Your task to perform on an android device: install app "Truecaller" Image 0: 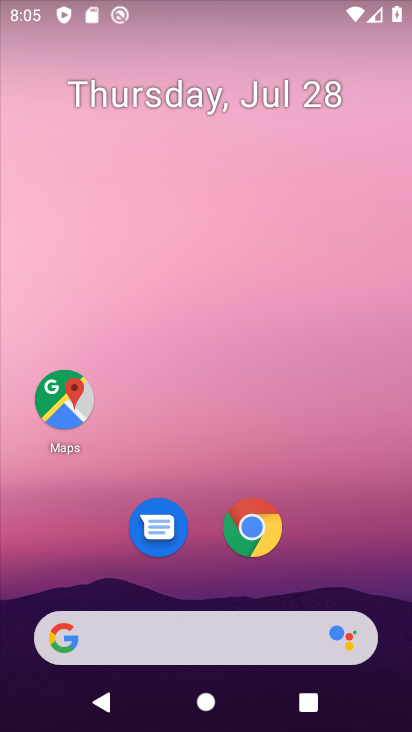
Step 0: drag from (235, 564) to (259, 87)
Your task to perform on an android device: install app "Truecaller" Image 1: 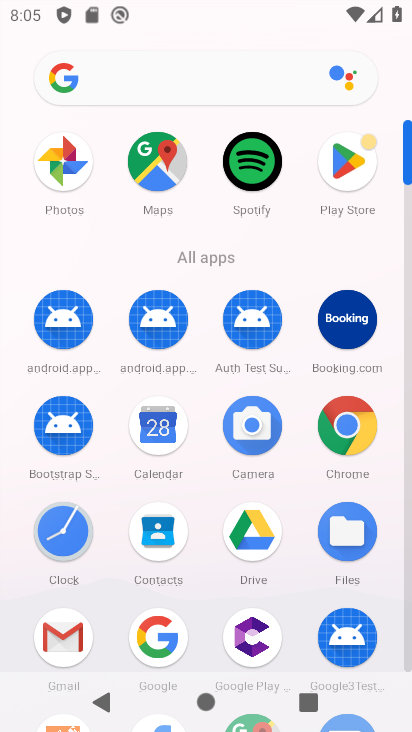
Step 1: click (341, 168)
Your task to perform on an android device: install app "Truecaller" Image 2: 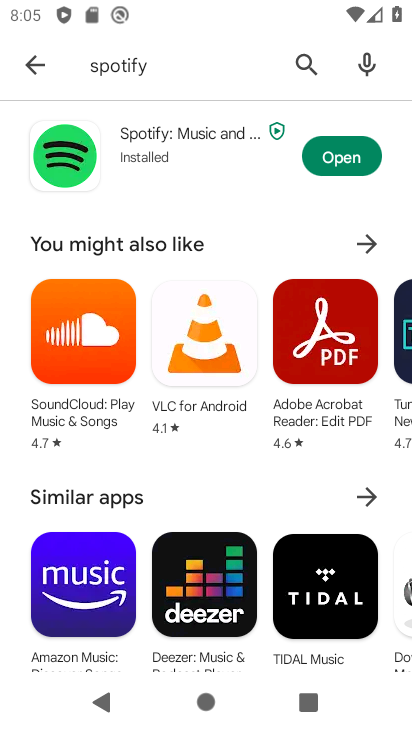
Step 2: click (294, 70)
Your task to perform on an android device: install app "Truecaller" Image 3: 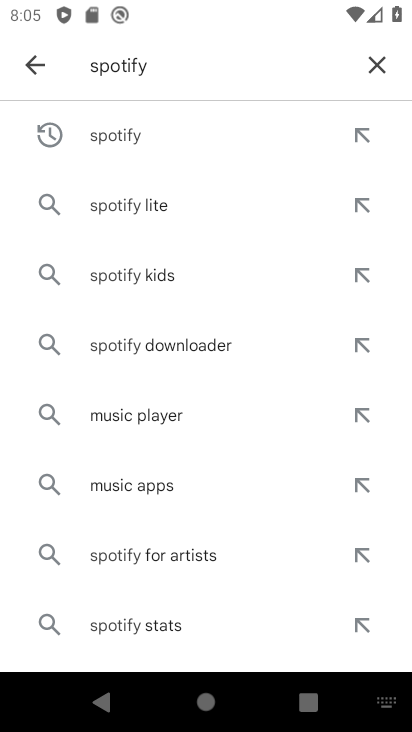
Step 3: click (369, 61)
Your task to perform on an android device: install app "Truecaller" Image 4: 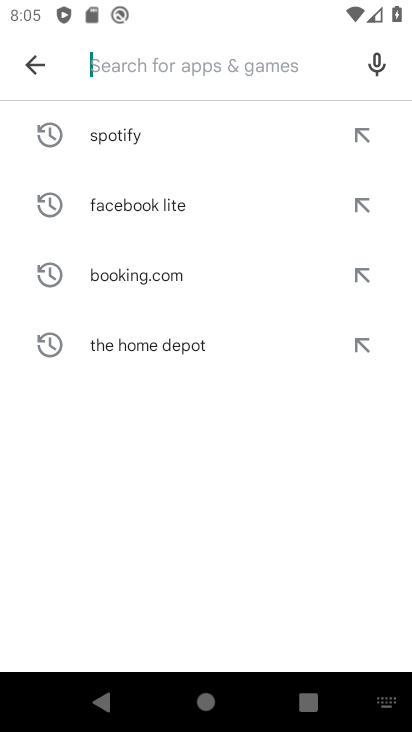
Step 4: click (159, 65)
Your task to perform on an android device: install app "Truecaller" Image 5: 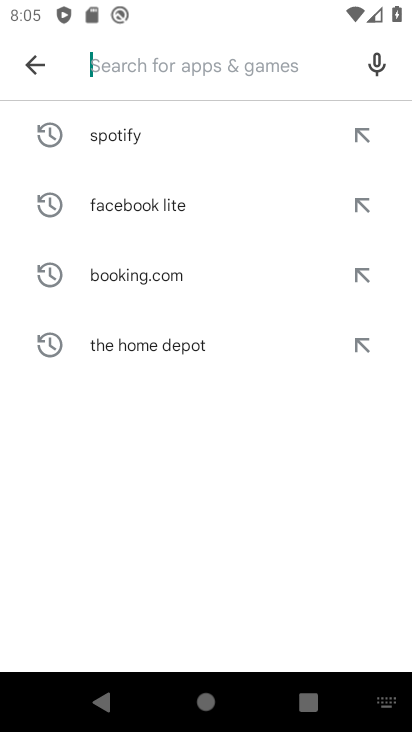
Step 5: type "truecaller"
Your task to perform on an android device: install app "Truecaller" Image 6: 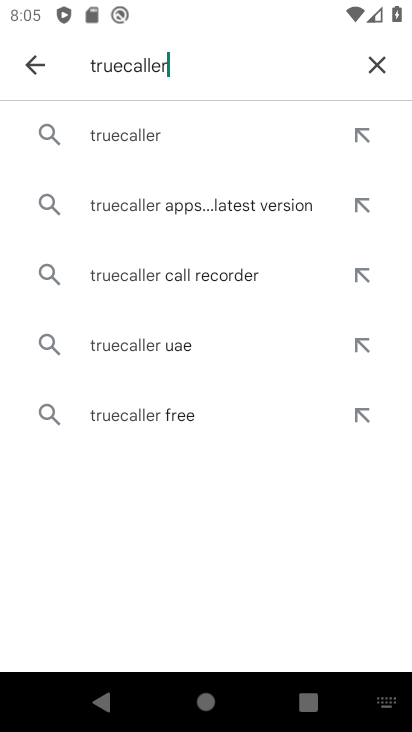
Step 6: click (95, 150)
Your task to perform on an android device: install app "Truecaller" Image 7: 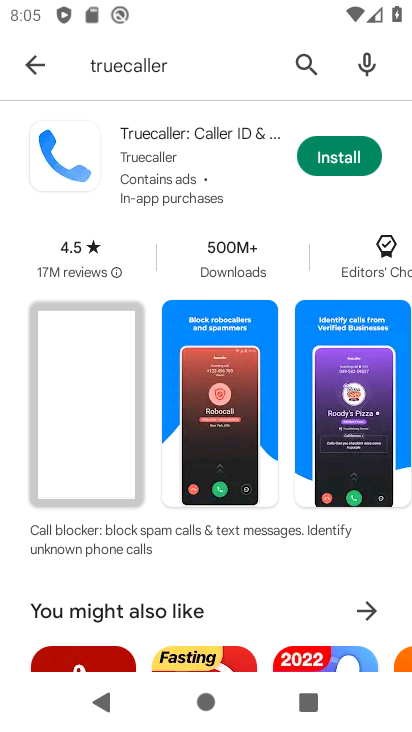
Step 7: click (329, 159)
Your task to perform on an android device: install app "Truecaller" Image 8: 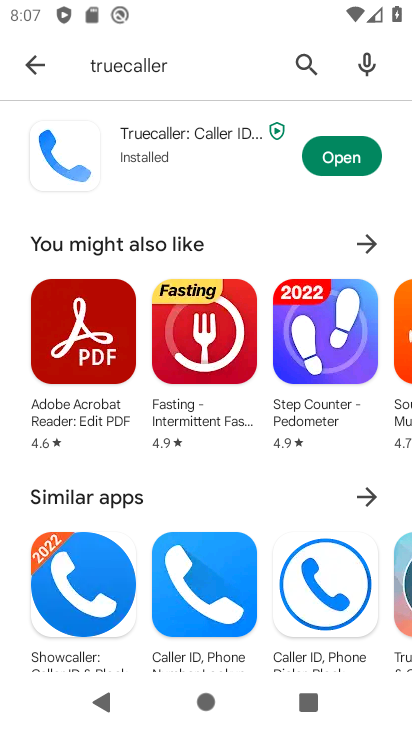
Step 8: click (329, 159)
Your task to perform on an android device: install app "Truecaller" Image 9: 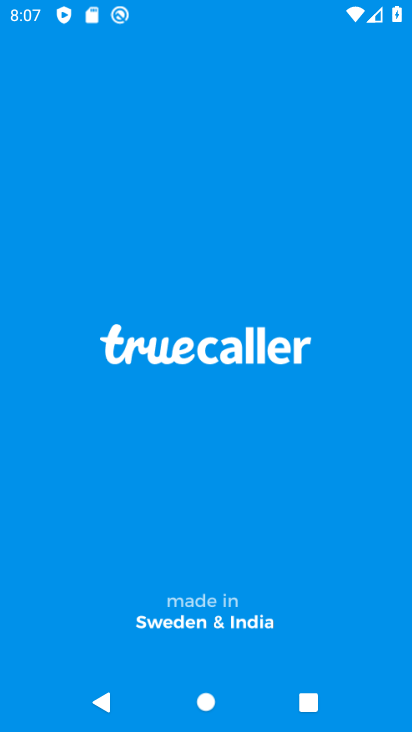
Step 9: task complete